Your task to perform on an android device: Search for nike dri-fit shirts on Nike Image 0: 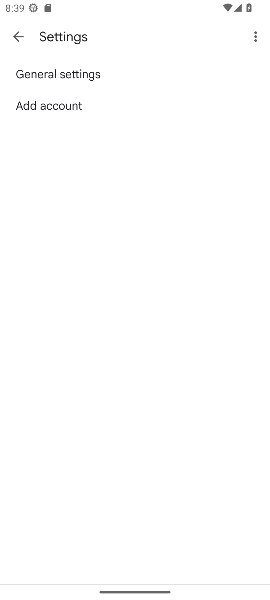
Step 0: press home button
Your task to perform on an android device: Search for nike dri-fit shirts on Nike Image 1: 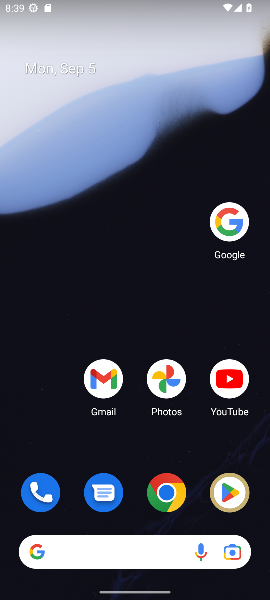
Step 1: click (219, 217)
Your task to perform on an android device: Search for nike dri-fit shirts on Nike Image 2: 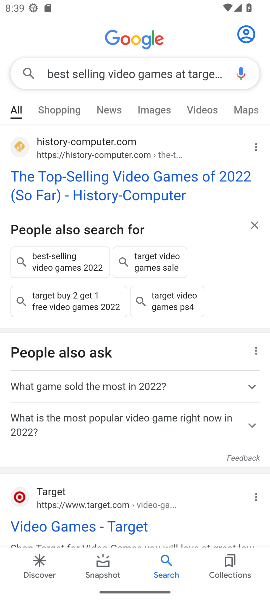
Step 2: click (158, 77)
Your task to perform on an android device: Search for nike dri-fit shirts on Nike Image 3: 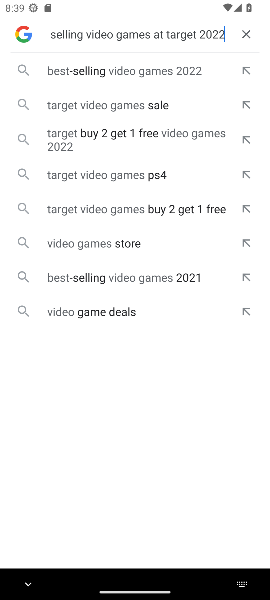
Step 3: click (246, 35)
Your task to perform on an android device: Search for nike dri-fit shirts on Nike Image 4: 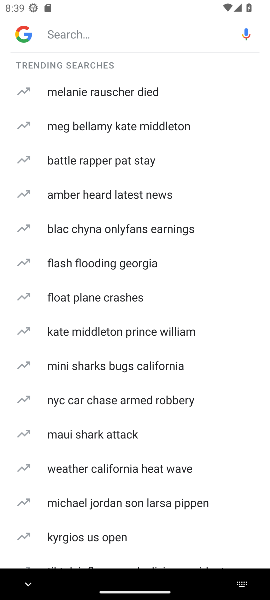
Step 4: click (114, 34)
Your task to perform on an android device: Search for nike dri-fit shirts on Nike Image 5: 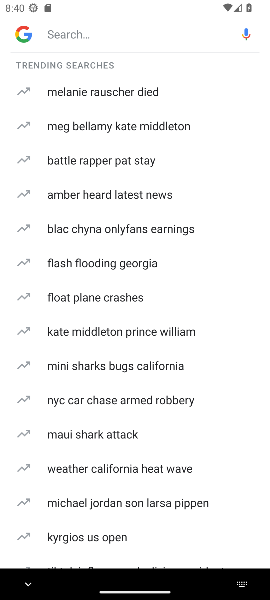
Step 5: type "nike dri-fit shirts on Nike "
Your task to perform on an android device: Search for nike dri-fit shirts on Nike Image 6: 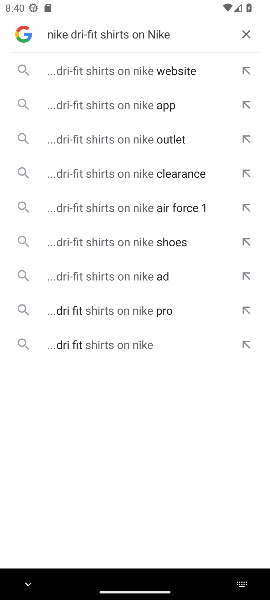
Step 6: click (116, 67)
Your task to perform on an android device: Search for nike dri-fit shirts on Nike Image 7: 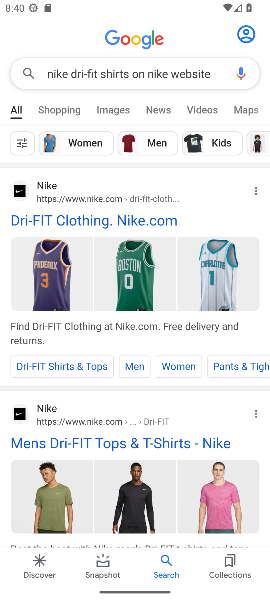
Step 7: drag from (151, 377) to (182, 91)
Your task to perform on an android device: Search for nike dri-fit shirts on Nike Image 8: 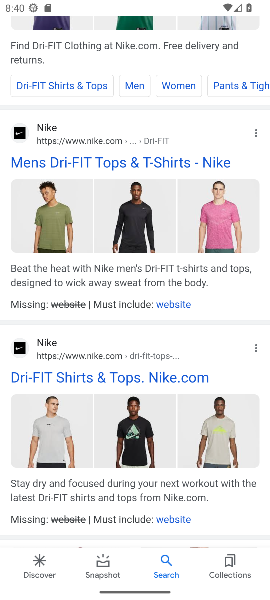
Step 8: click (106, 164)
Your task to perform on an android device: Search for nike dri-fit shirts on Nike Image 9: 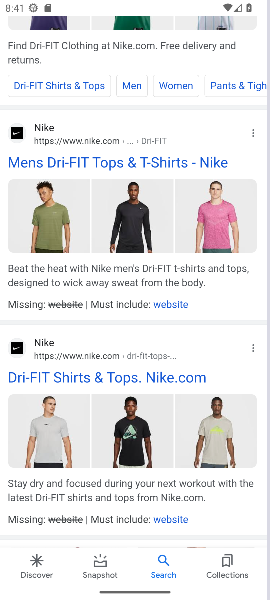
Step 9: task complete